Your task to perform on an android device: open the mobile data screen to see how much data has been used Image 0: 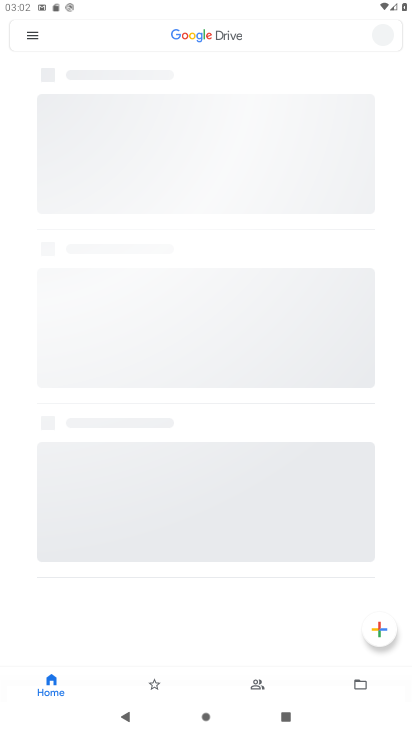
Step 0: click (342, 571)
Your task to perform on an android device: open the mobile data screen to see how much data has been used Image 1: 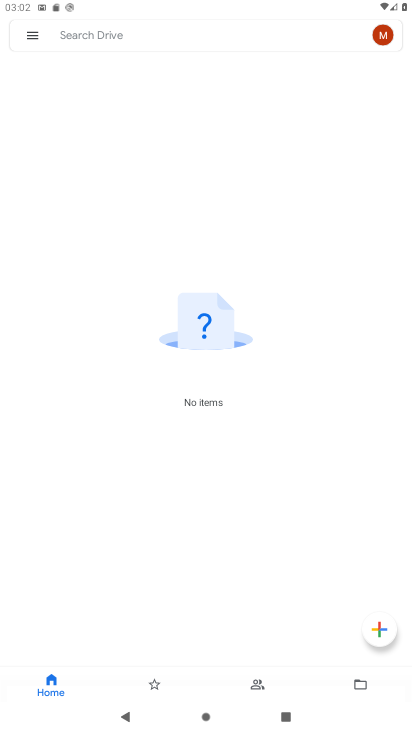
Step 1: press home button
Your task to perform on an android device: open the mobile data screen to see how much data has been used Image 2: 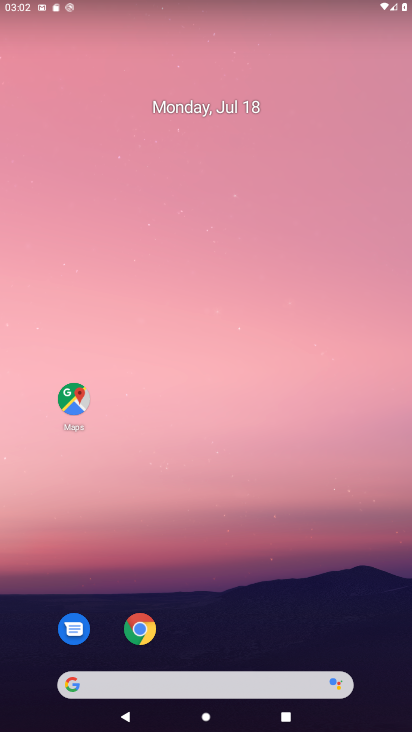
Step 2: drag from (366, 625) to (395, 60)
Your task to perform on an android device: open the mobile data screen to see how much data has been used Image 3: 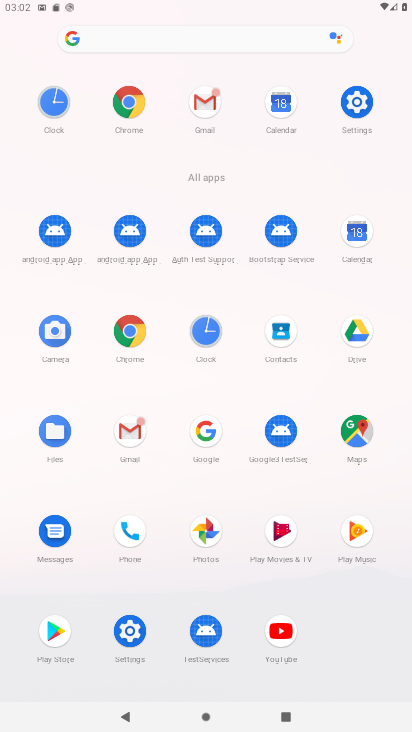
Step 3: click (361, 102)
Your task to perform on an android device: open the mobile data screen to see how much data has been used Image 4: 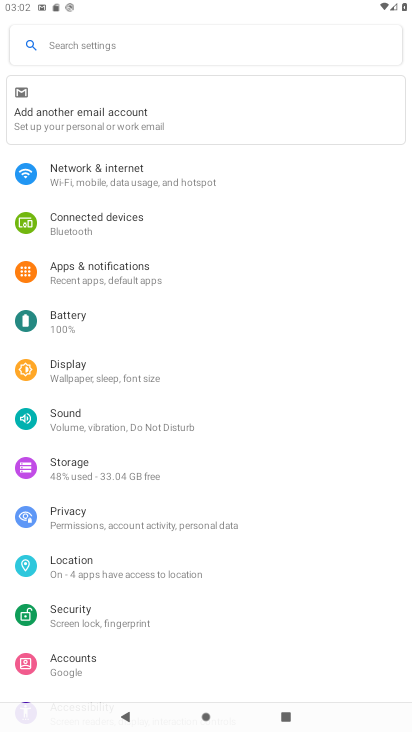
Step 4: drag from (355, 488) to (355, 400)
Your task to perform on an android device: open the mobile data screen to see how much data has been used Image 5: 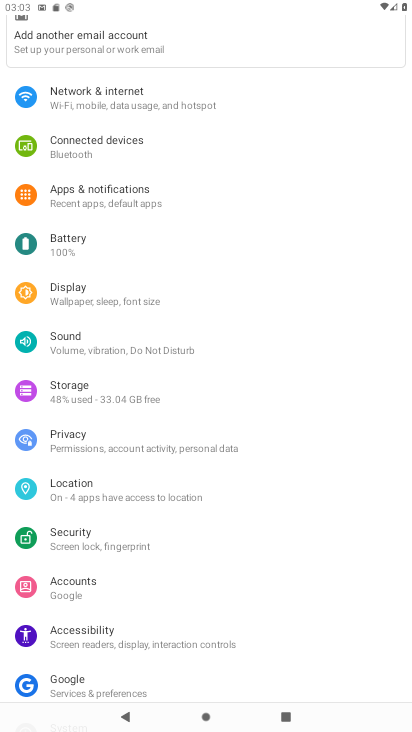
Step 5: drag from (348, 544) to (330, 372)
Your task to perform on an android device: open the mobile data screen to see how much data has been used Image 6: 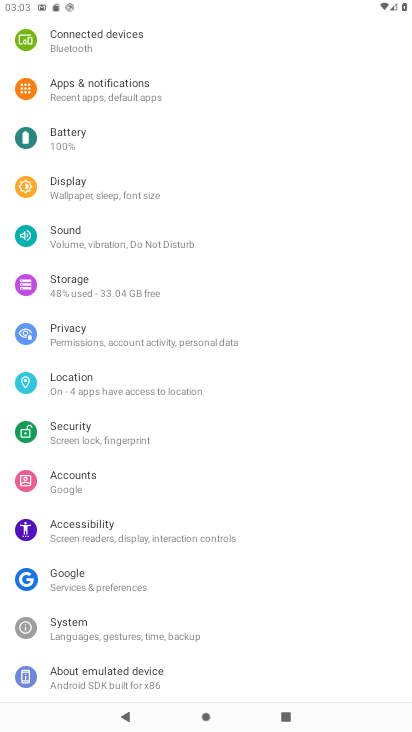
Step 6: drag from (317, 269) to (317, 366)
Your task to perform on an android device: open the mobile data screen to see how much data has been used Image 7: 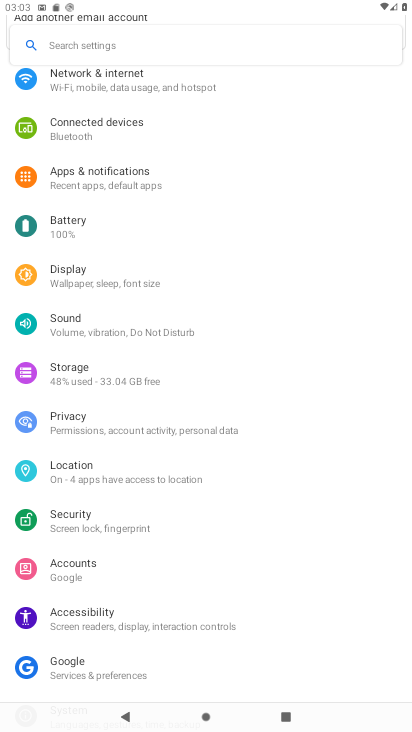
Step 7: drag from (306, 240) to (305, 384)
Your task to perform on an android device: open the mobile data screen to see how much data has been used Image 8: 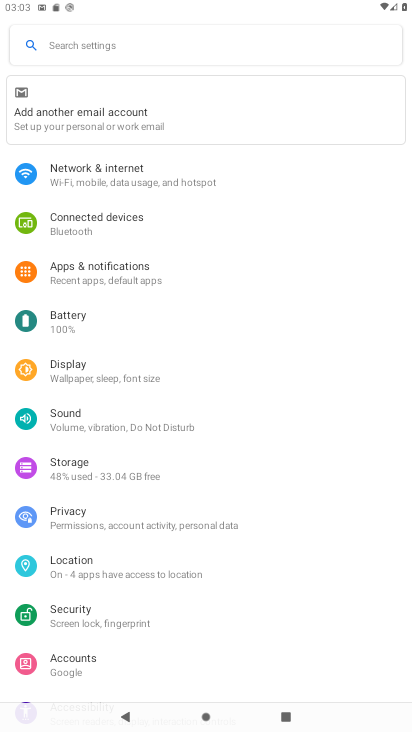
Step 8: click (216, 181)
Your task to perform on an android device: open the mobile data screen to see how much data has been used Image 9: 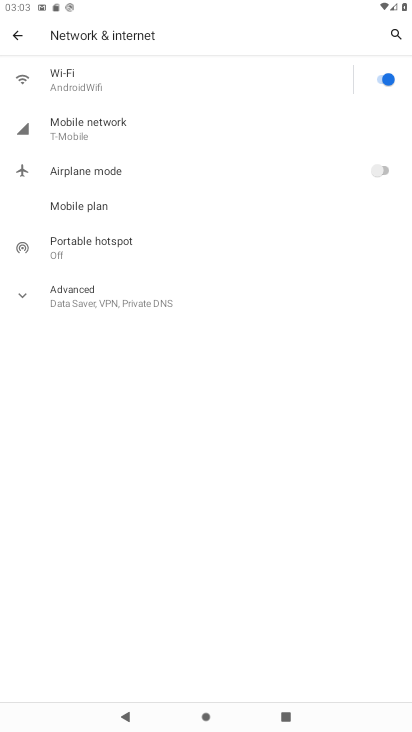
Step 9: click (139, 133)
Your task to perform on an android device: open the mobile data screen to see how much data has been used Image 10: 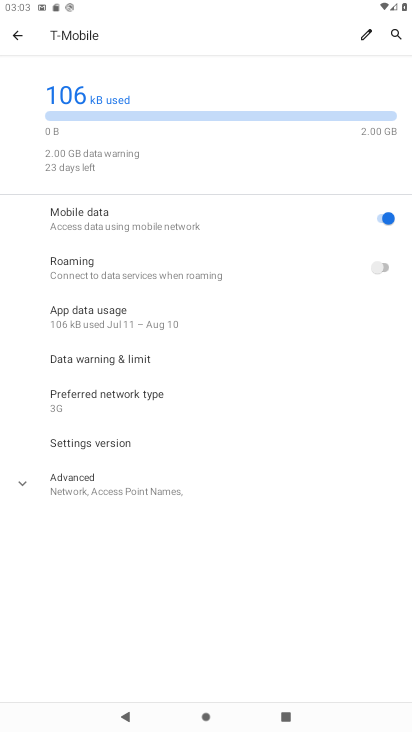
Step 10: click (207, 314)
Your task to perform on an android device: open the mobile data screen to see how much data has been used Image 11: 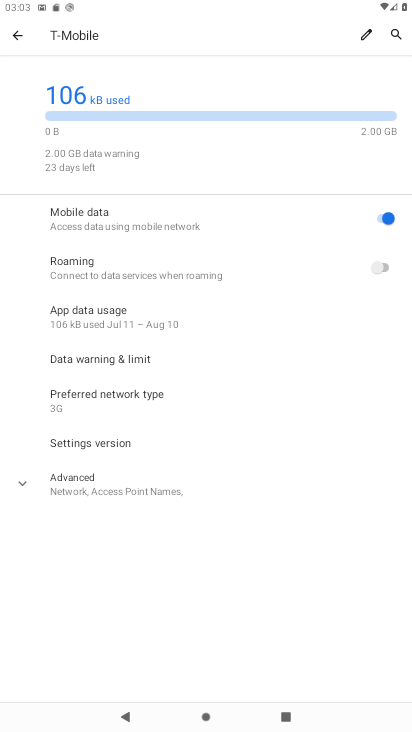
Step 11: click (124, 312)
Your task to perform on an android device: open the mobile data screen to see how much data has been used Image 12: 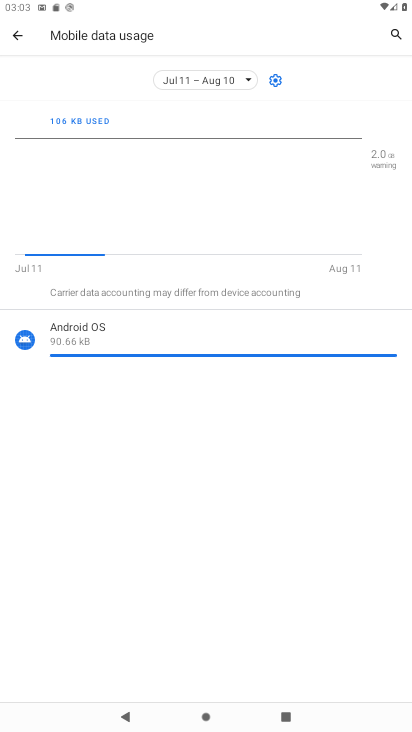
Step 12: task complete